Your task to perform on an android device: Play the last video I watched on Youtube Image 0: 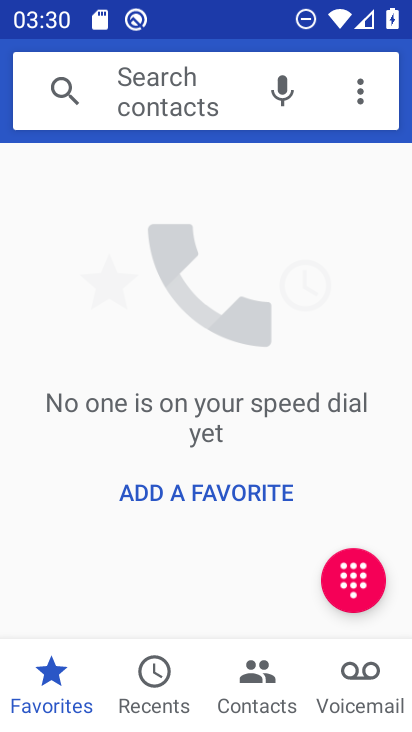
Step 0: press home button
Your task to perform on an android device: Play the last video I watched on Youtube Image 1: 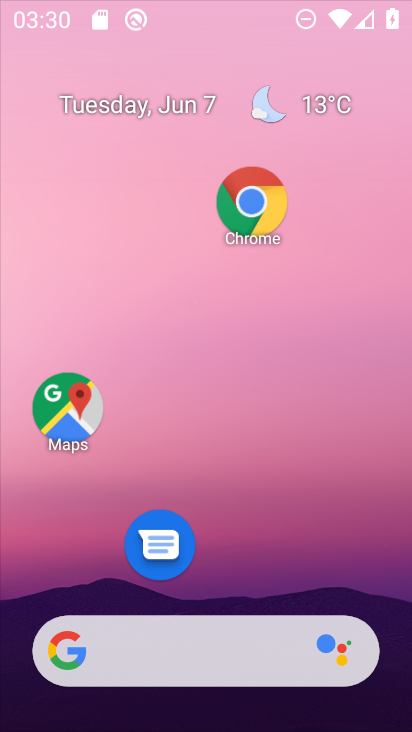
Step 1: drag from (259, 644) to (274, 244)
Your task to perform on an android device: Play the last video I watched on Youtube Image 2: 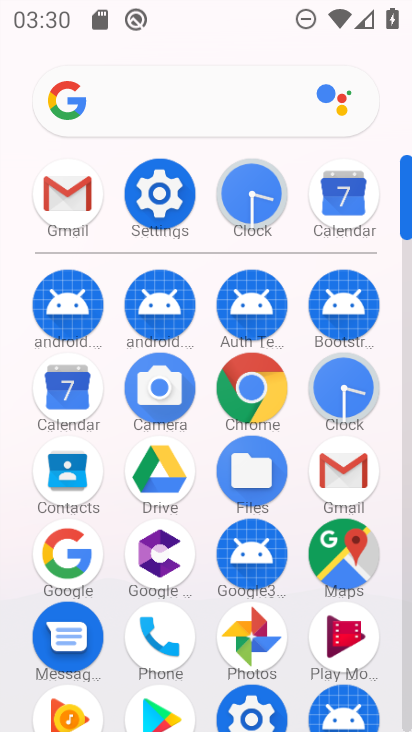
Step 2: drag from (311, 623) to (316, 317)
Your task to perform on an android device: Play the last video I watched on Youtube Image 3: 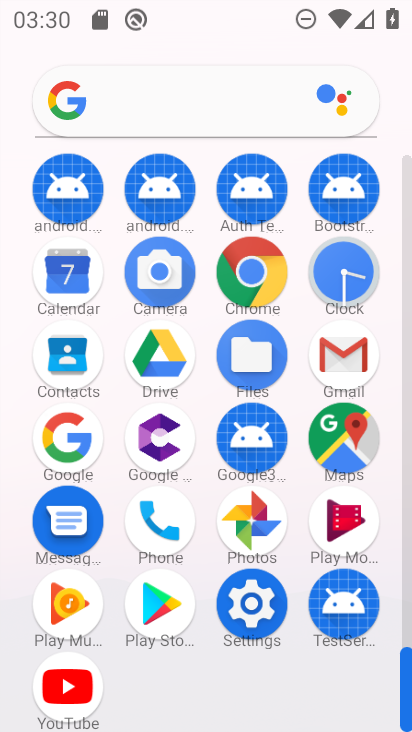
Step 3: click (72, 679)
Your task to perform on an android device: Play the last video I watched on Youtube Image 4: 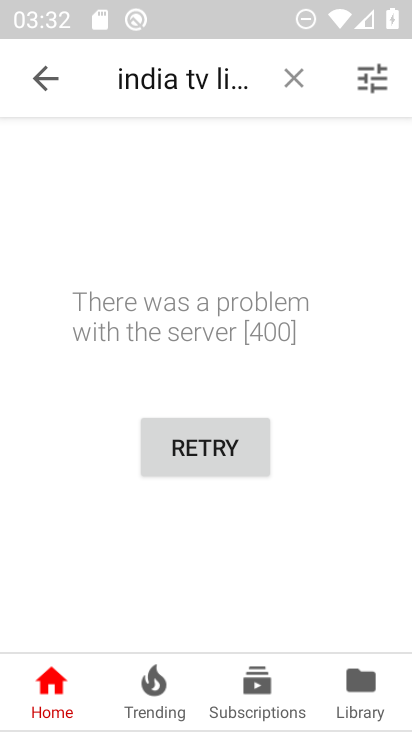
Step 4: task complete